Your task to perform on an android device: open sync settings in chrome Image 0: 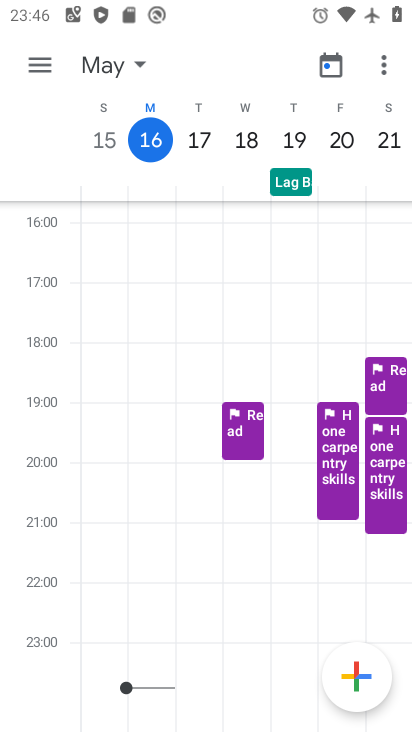
Step 0: press back button
Your task to perform on an android device: open sync settings in chrome Image 1: 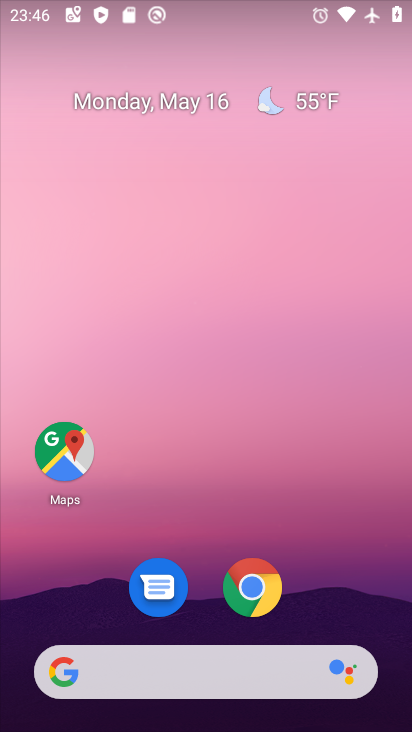
Step 1: drag from (343, 573) to (269, 40)
Your task to perform on an android device: open sync settings in chrome Image 2: 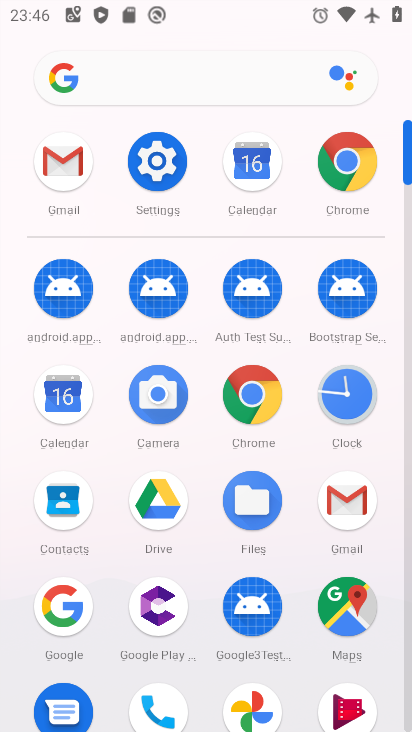
Step 2: drag from (25, 557) to (31, 235)
Your task to perform on an android device: open sync settings in chrome Image 3: 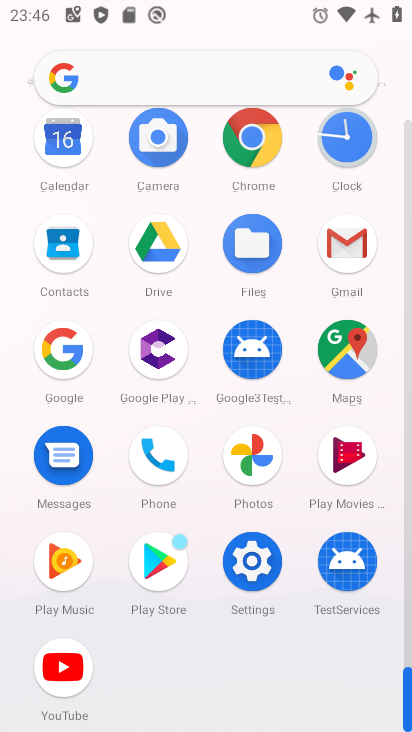
Step 3: click (254, 132)
Your task to perform on an android device: open sync settings in chrome Image 4: 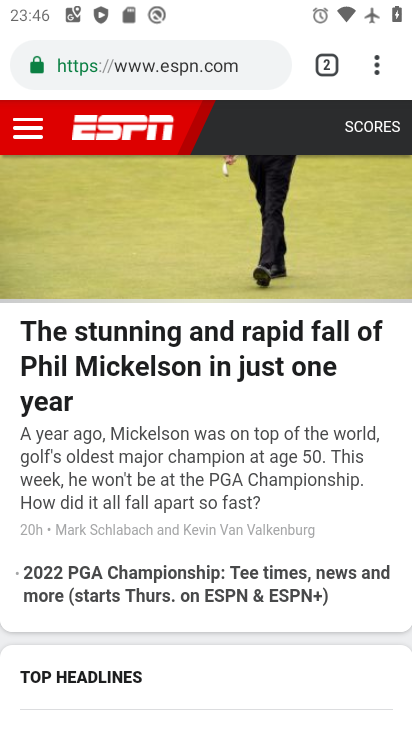
Step 4: drag from (375, 68) to (193, 638)
Your task to perform on an android device: open sync settings in chrome Image 5: 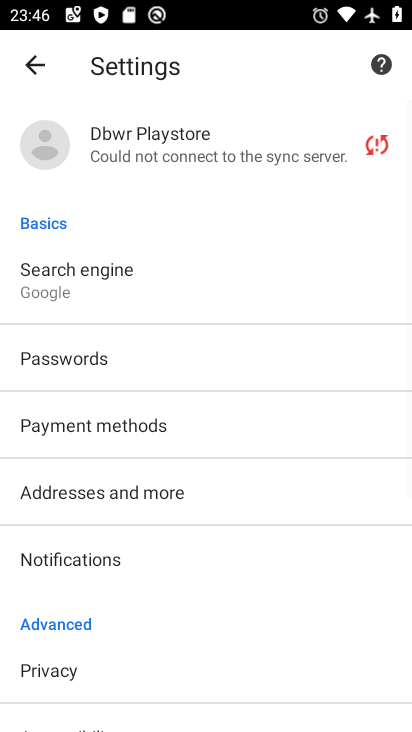
Step 5: click (131, 143)
Your task to perform on an android device: open sync settings in chrome Image 6: 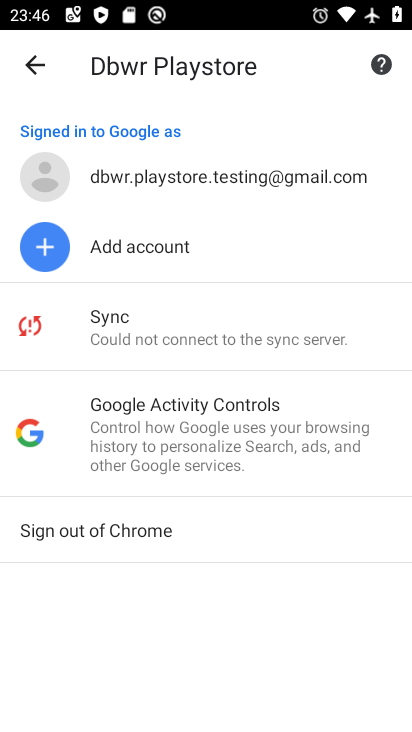
Step 6: click (154, 309)
Your task to perform on an android device: open sync settings in chrome Image 7: 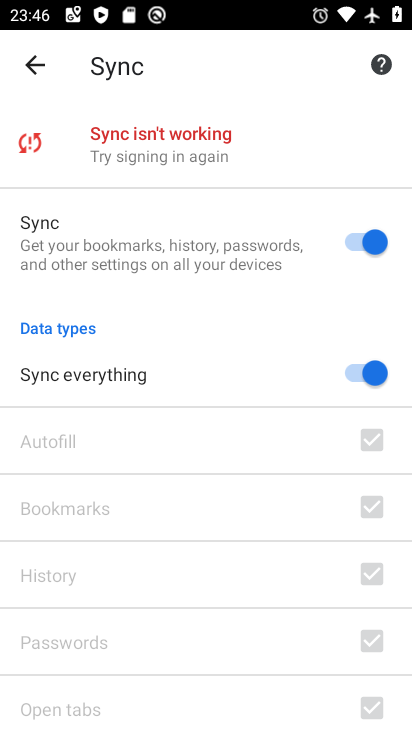
Step 7: task complete